Your task to perform on an android device: turn on sleep mode Image 0: 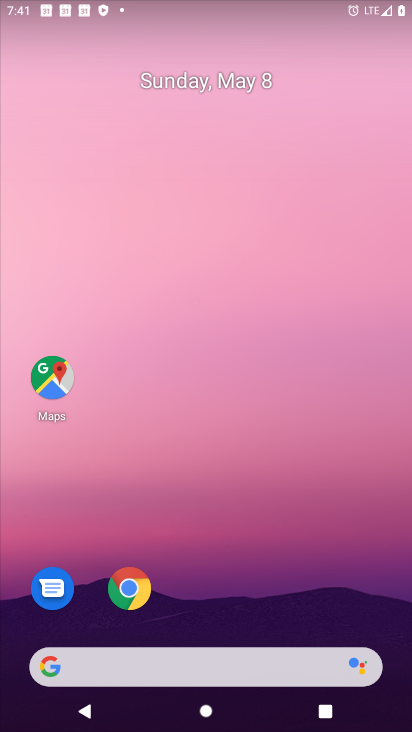
Step 0: drag from (218, 670) to (411, 78)
Your task to perform on an android device: turn on sleep mode Image 1: 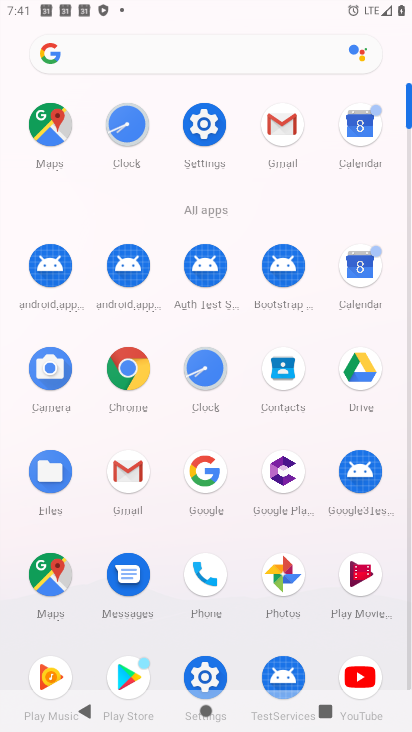
Step 1: click (210, 125)
Your task to perform on an android device: turn on sleep mode Image 2: 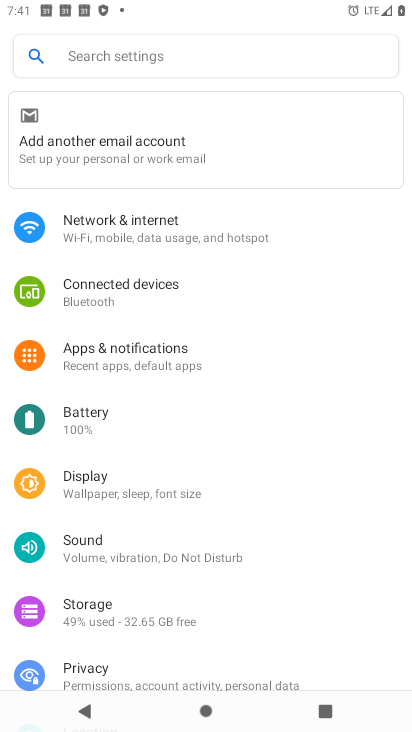
Step 2: click (163, 490)
Your task to perform on an android device: turn on sleep mode Image 3: 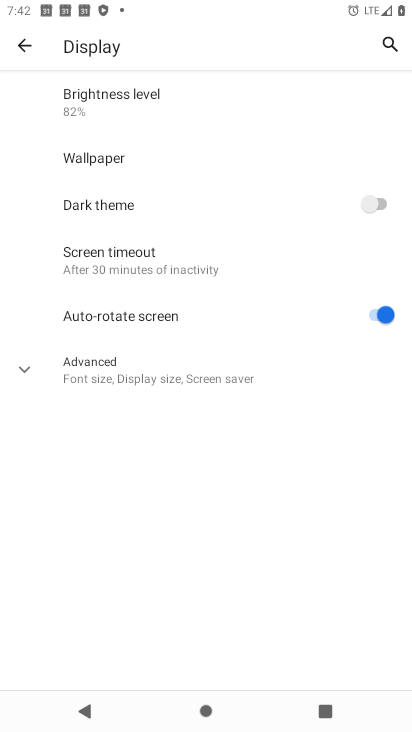
Step 3: task complete